Your task to perform on an android device: Search for pizza restaurants on Maps Image 0: 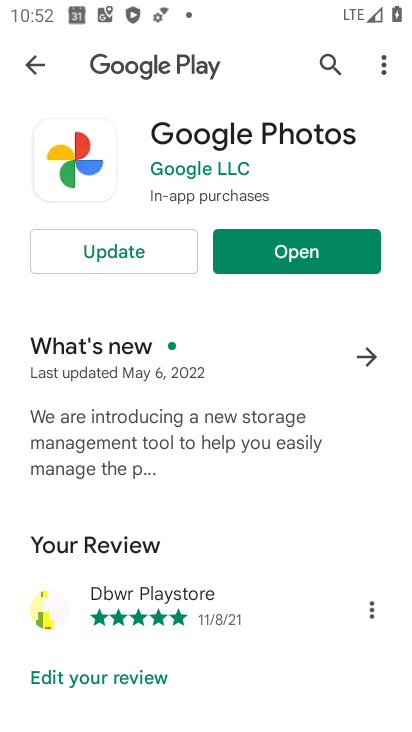
Step 0: press home button
Your task to perform on an android device: Search for pizza restaurants on Maps Image 1: 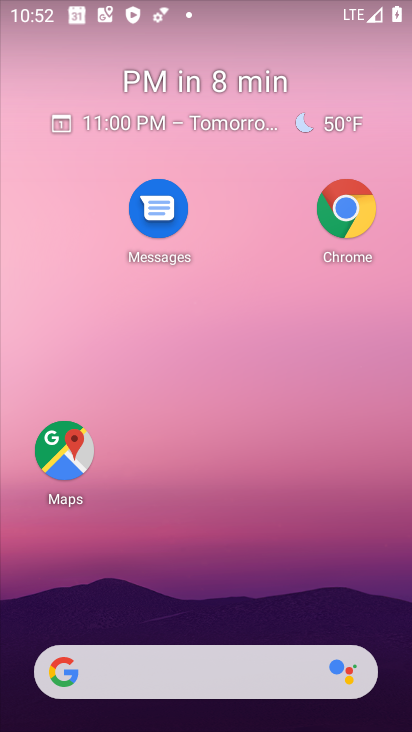
Step 1: drag from (182, 622) to (180, 31)
Your task to perform on an android device: Search for pizza restaurants on Maps Image 2: 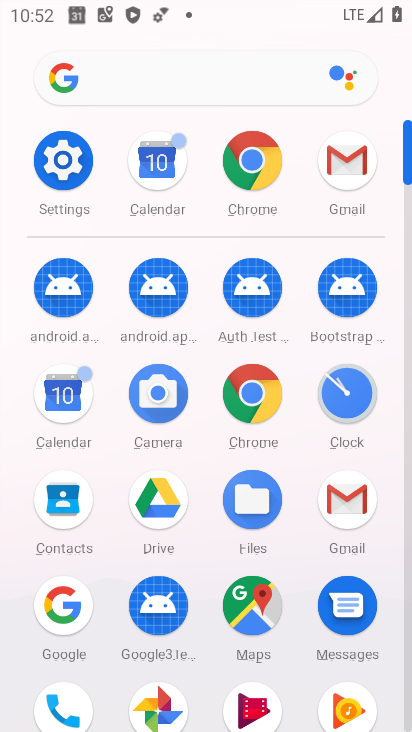
Step 2: click (253, 597)
Your task to perform on an android device: Search for pizza restaurants on Maps Image 3: 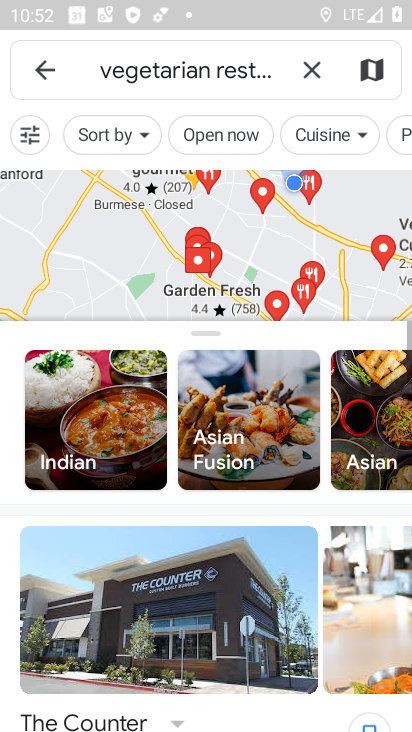
Step 3: click (313, 65)
Your task to perform on an android device: Search for pizza restaurants on Maps Image 4: 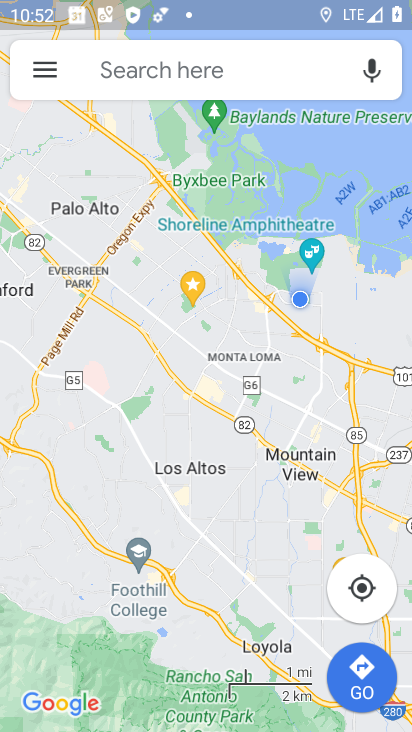
Step 4: click (247, 70)
Your task to perform on an android device: Search for pizza restaurants on Maps Image 5: 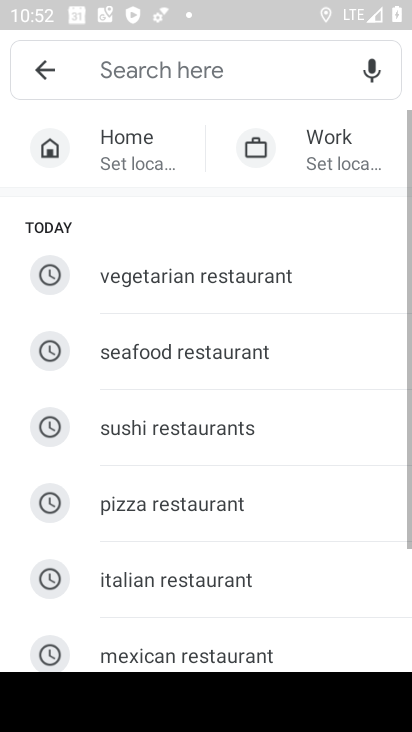
Step 5: click (234, 501)
Your task to perform on an android device: Search for pizza restaurants on Maps Image 6: 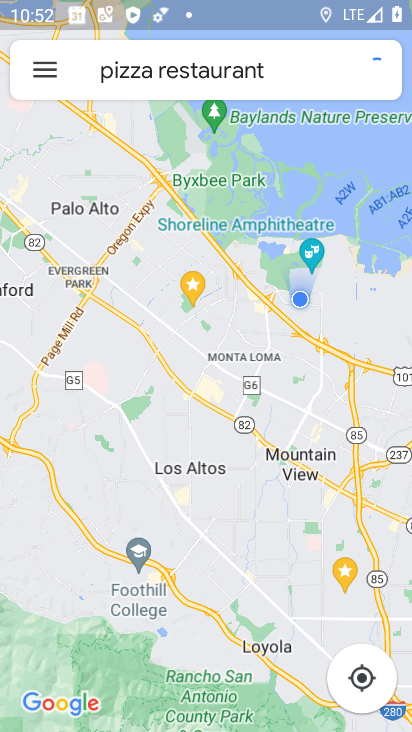
Step 6: task complete